Your task to perform on an android device: Open maps Image 0: 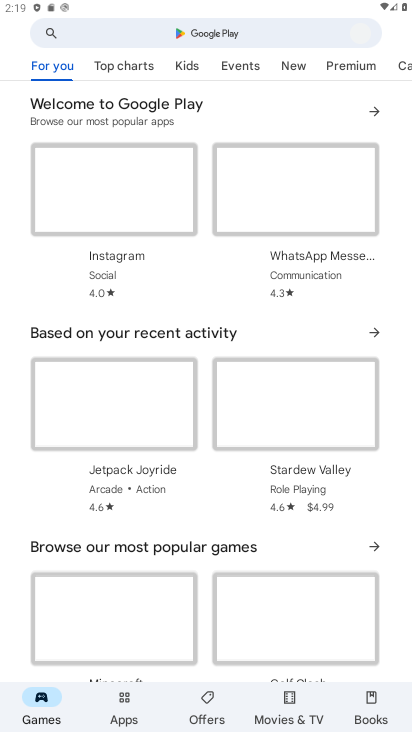
Step 0: press home button
Your task to perform on an android device: Open maps Image 1: 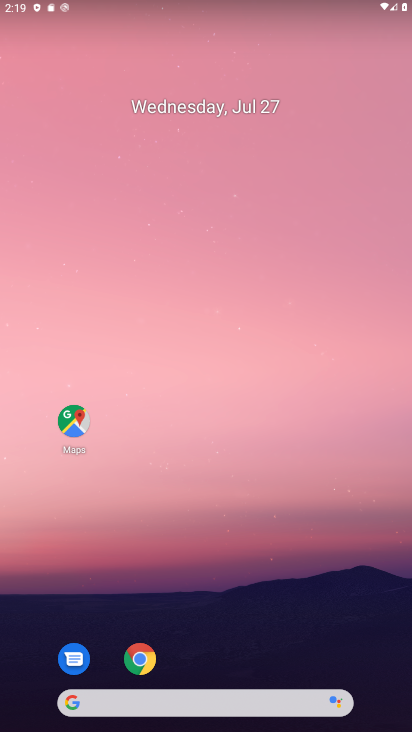
Step 1: click (65, 416)
Your task to perform on an android device: Open maps Image 2: 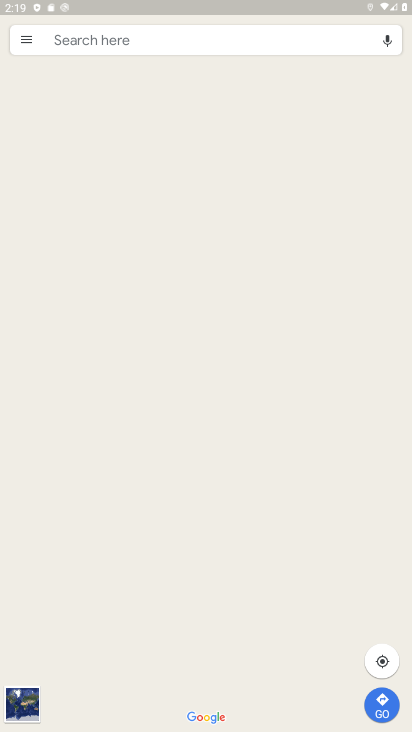
Step 2: task complete